Your task to perform on an android device: install app "Google Home" Image 0: 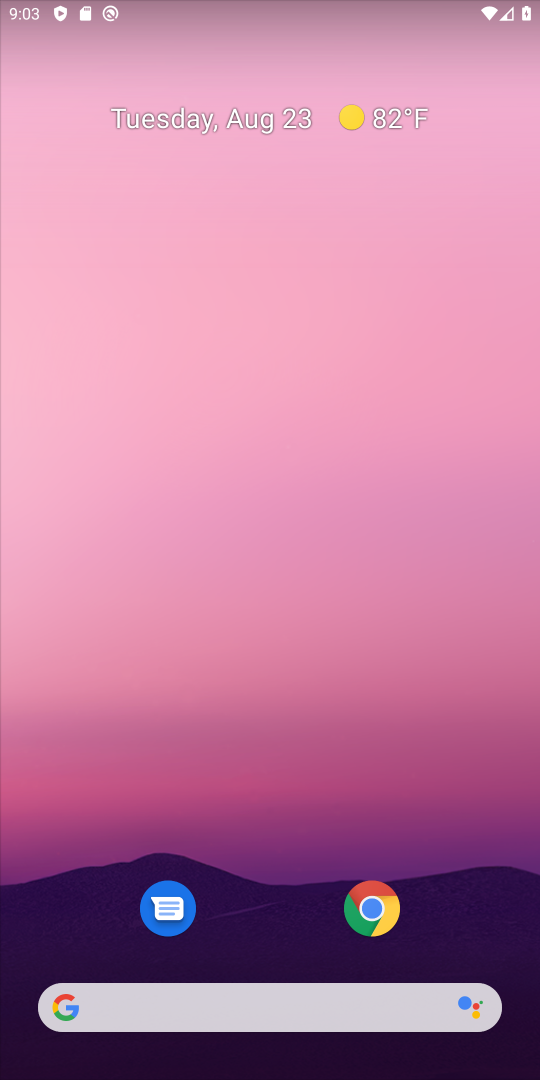
Step 0: drag from (279, 966) to (199, 3)
Your task to perform on an android device: install app "Google Home" Image 1: 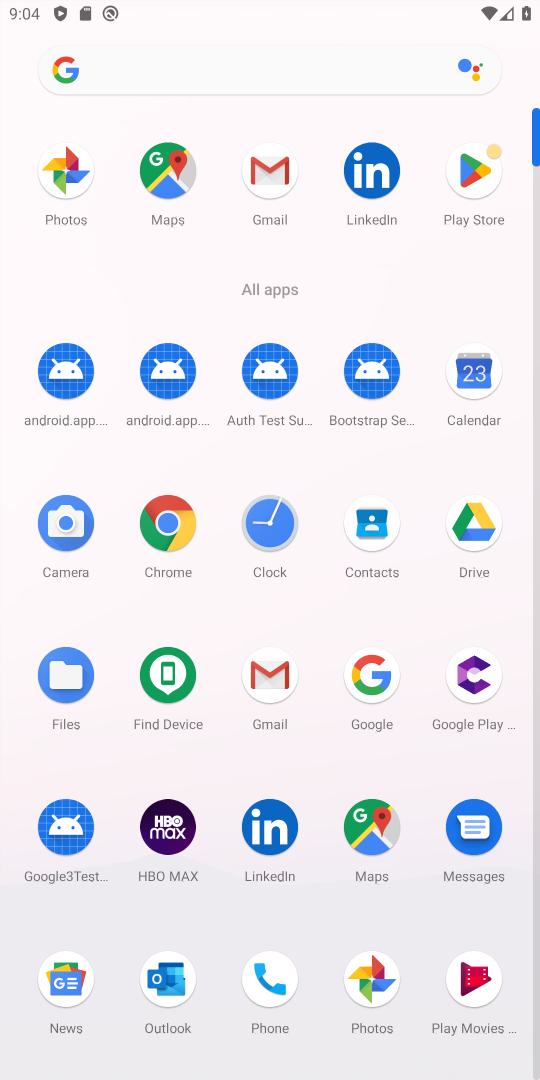
Step 1: click (476, 152)
Your task to perform on an android device: install app "Google Home" Image 2: 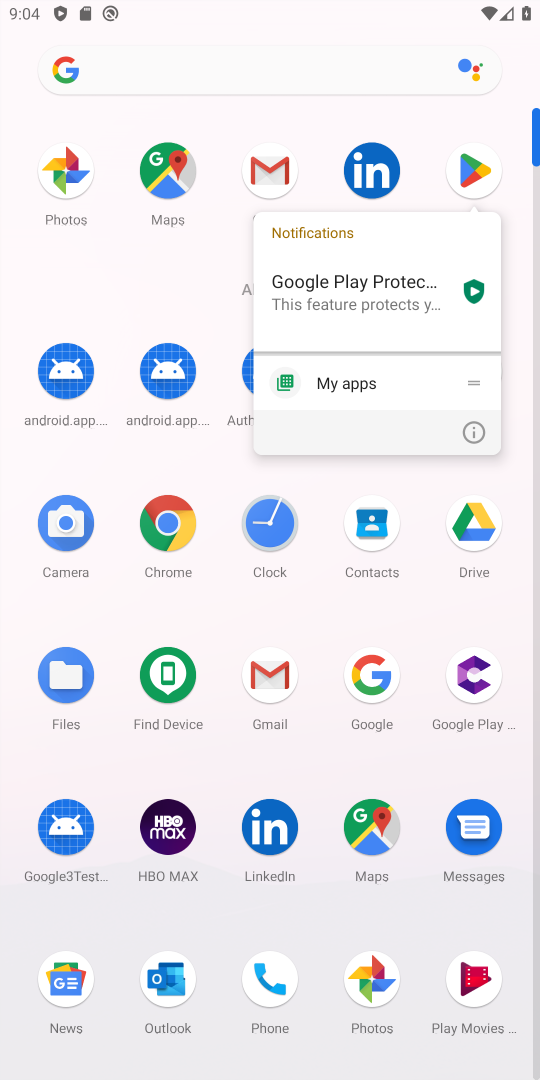
Step 2: click (508, 174)
Your task to perform on an android device: install app "Google Home" Image 3: 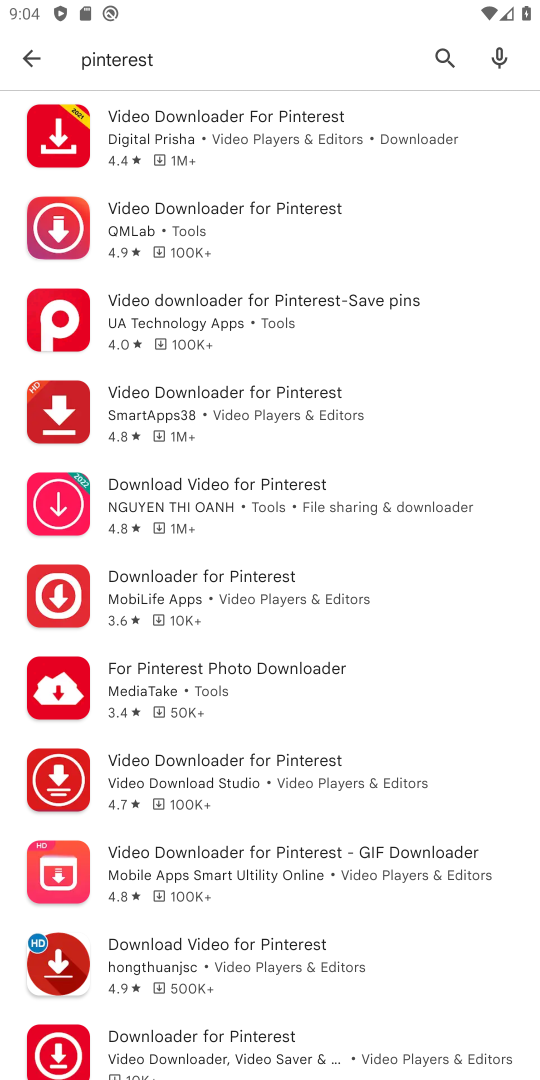
Step 3: click (203, 50)
Your task to perform on an android device: install app "Google Home" Image 4: 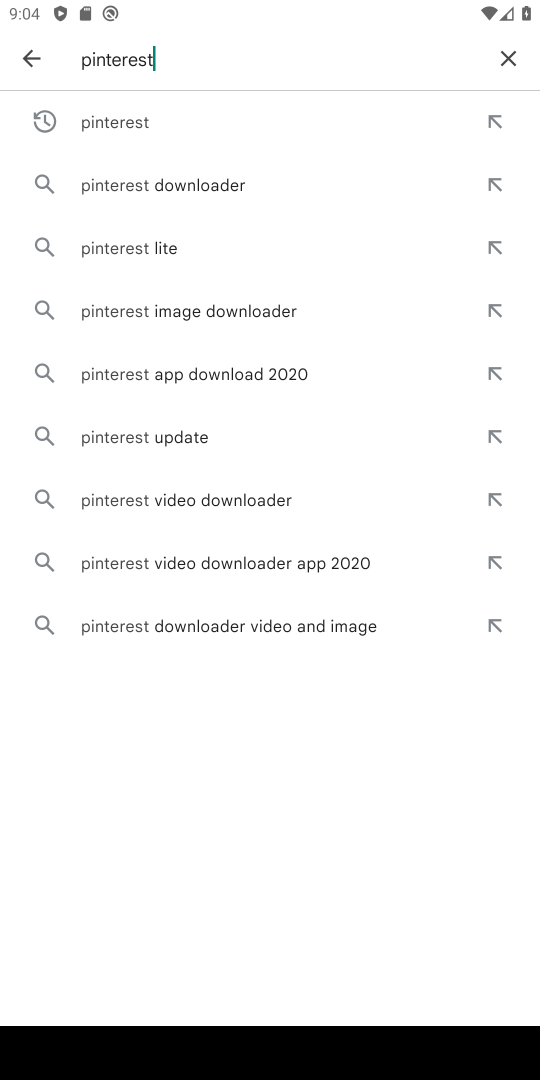
Step 4: click (503, 52)
Your task to perform on an android device: install app "Google Home" Image 5: 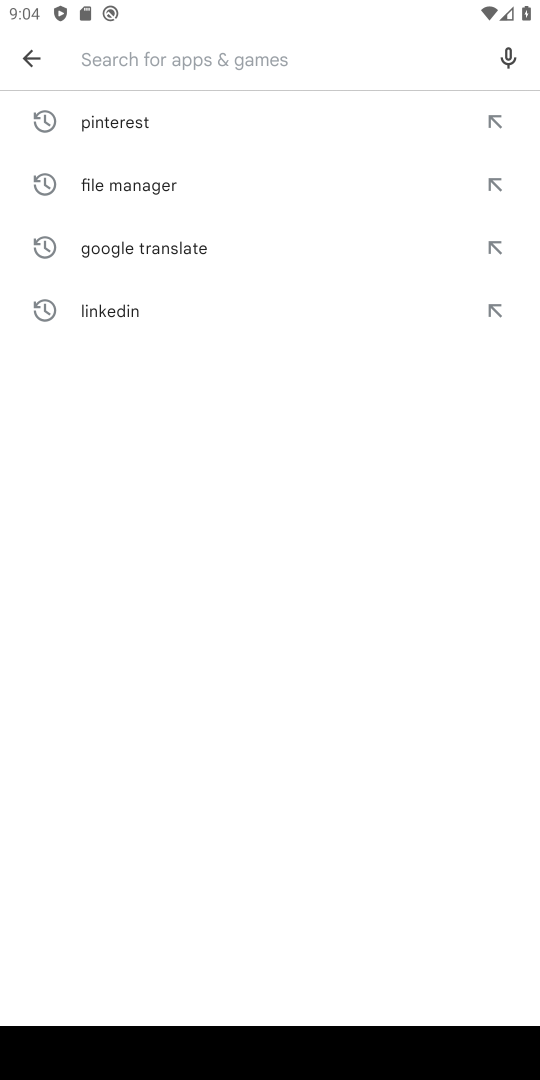
Step 5: type "google home"
Your task to perform on an android device: install app "Google Home" Image 6: 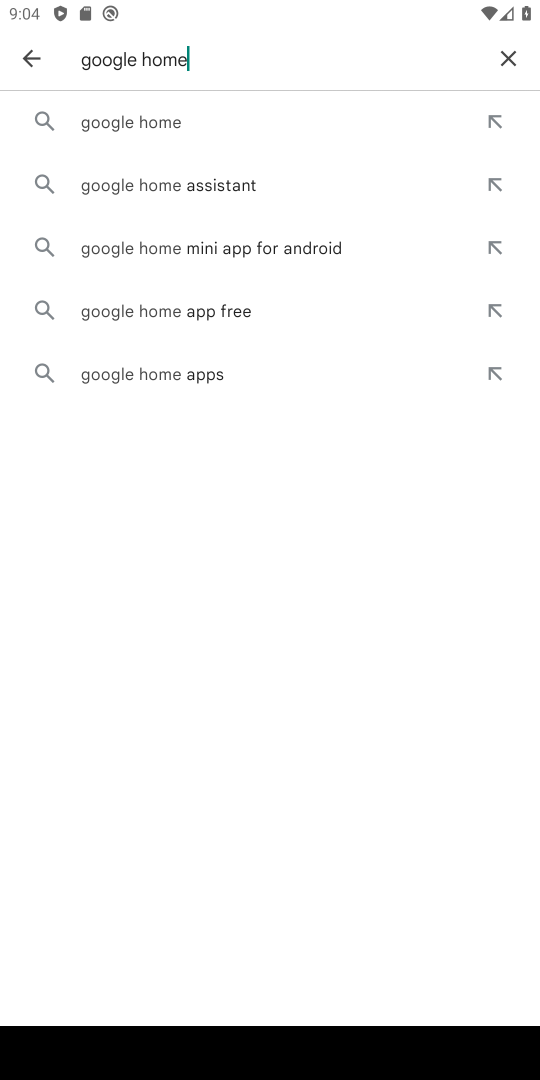
Step 6: click (147, 135)
Your task to perform on an android device: install app "Google Home" Image 7: 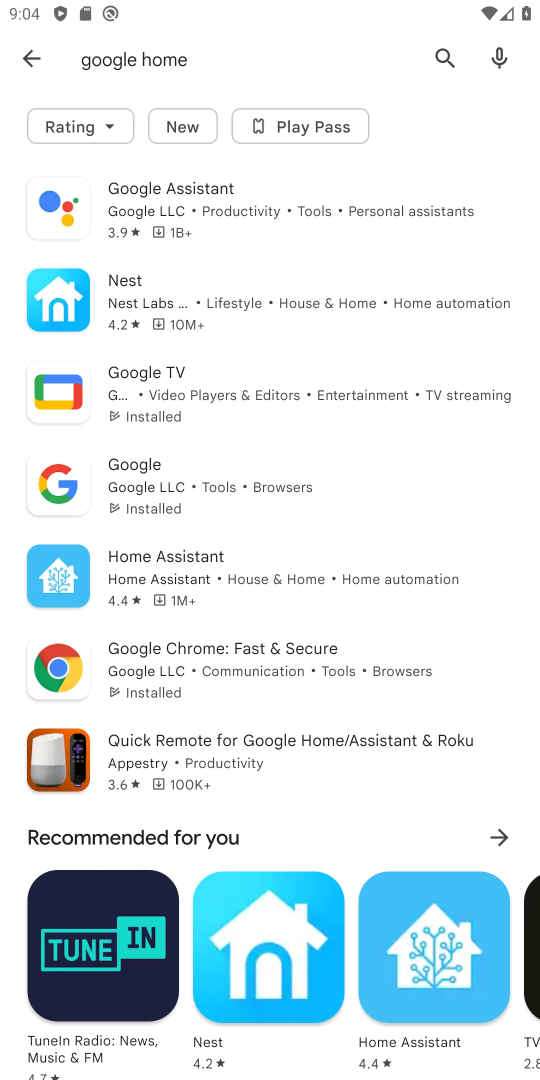
Step 7: task complete